Your task to perform on an android device: turn off translation in the chrome app Image 0: 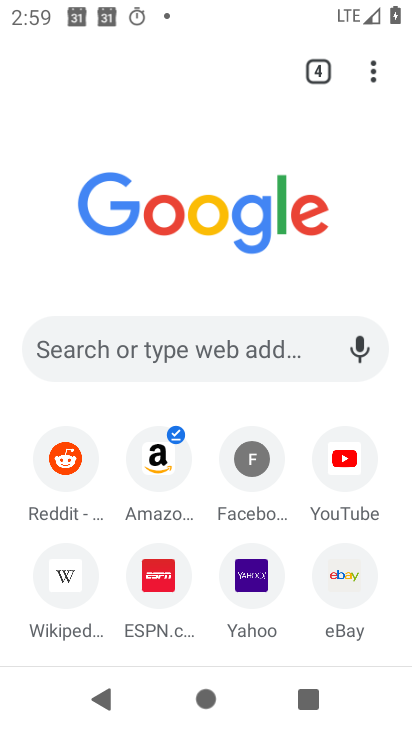
Step 0: click (361, 84)
Your task to perform on an android device: turn off translation in the chrome app Image 1: 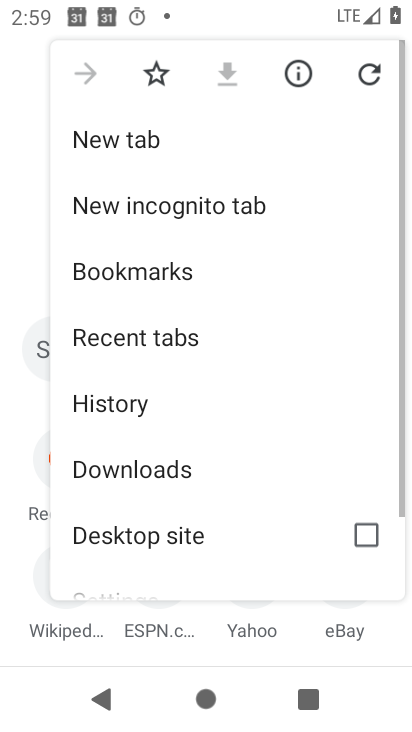
Step 1: drag from (176, 399) to (177, 168)
Your task to perform on an android device: turn off translation in the chrome app Image 2: 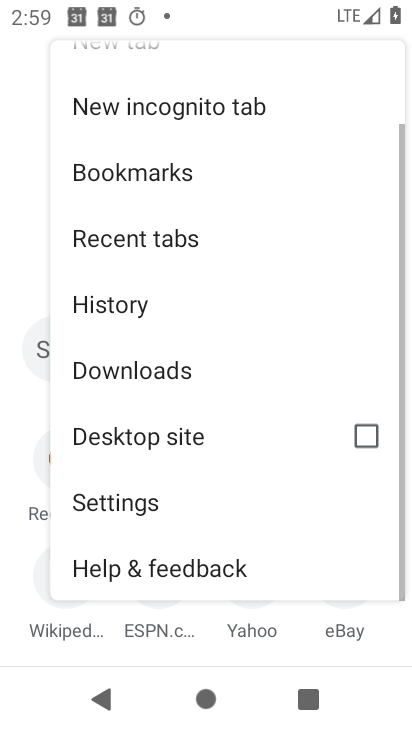
Step 2: click (170, 505)
Your task to perform on an android device: turn off translation in the chrome app Image 3: 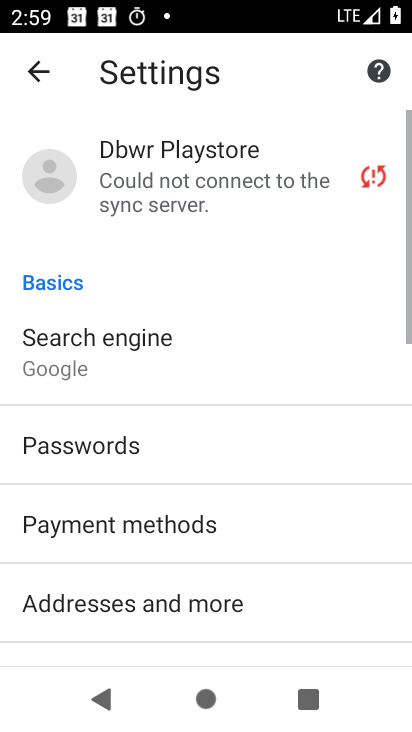
Step 3: drag from (183, 519) to (226, 269)
Your task to perform on an android device: turn off translation in the chrome app Image 4: 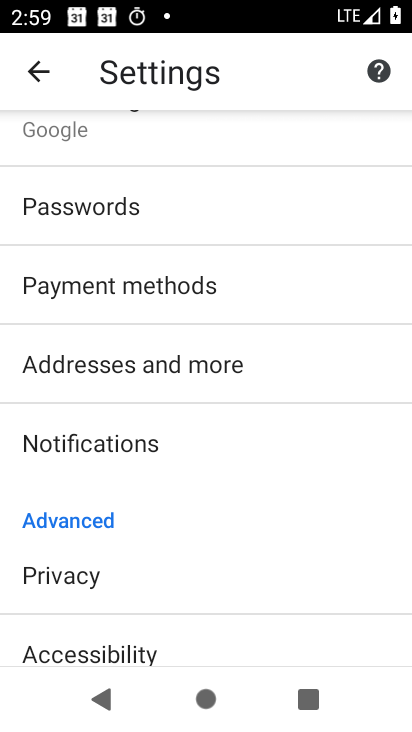
Step 4: drag from (167, 545) to (190, 280)
Your task to perform on an android device: turn off translation in the chrome app Image 5: 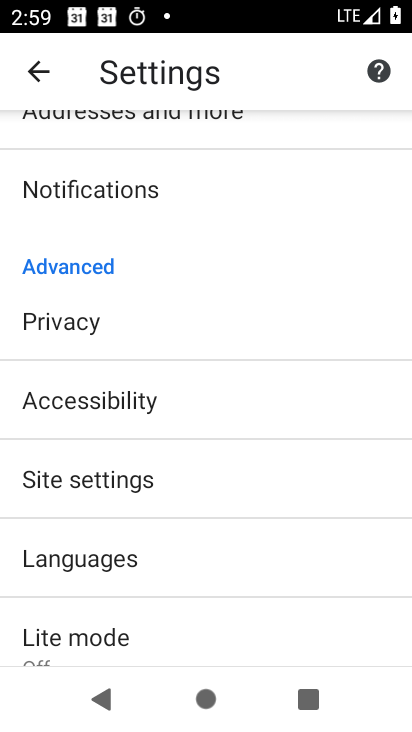
Step 5: click (166, 565)
Your task to perform on an android device: turn off translation in the chrome app Image 6: 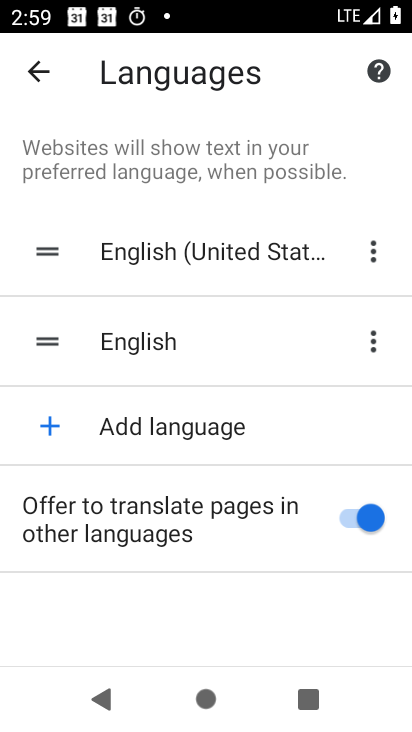
Step 6: click (343, 528)
Your task to perform on an android device: turn off translation in the chrome app Image 7: 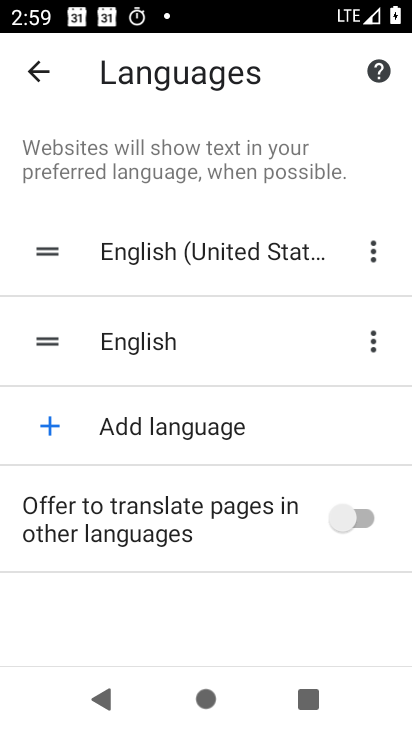
Step 7: task complete